Your task to perform on an android device: check storage Image 0: 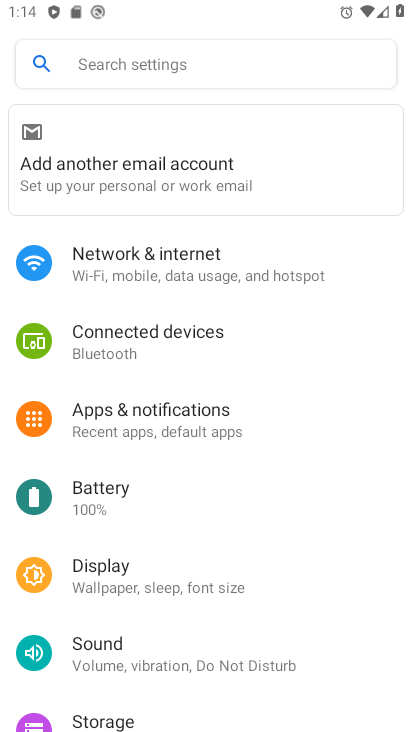
Step 0: press home button
Your task to perform on an android device: check storage Image 1: 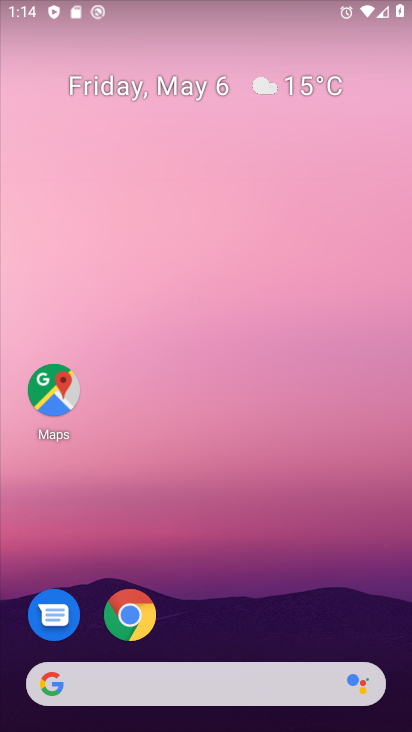
Step 1: drag from (281, 509) to (287, 62)
Your task to perform on an android device: check storage Image 2: 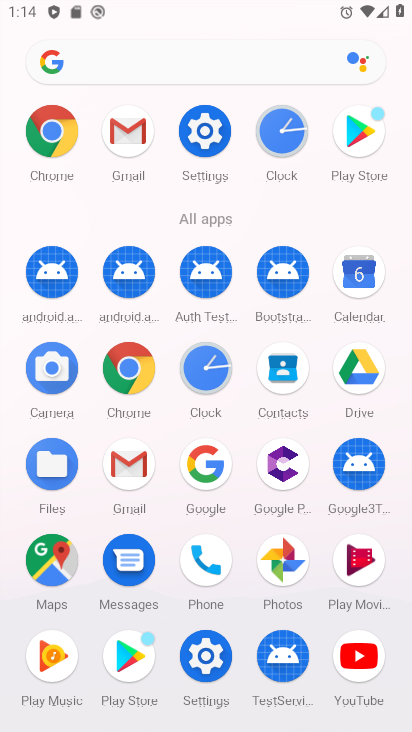
Step 2: click (215, 127)
Your task to perform on an android device: check storage Image 3: 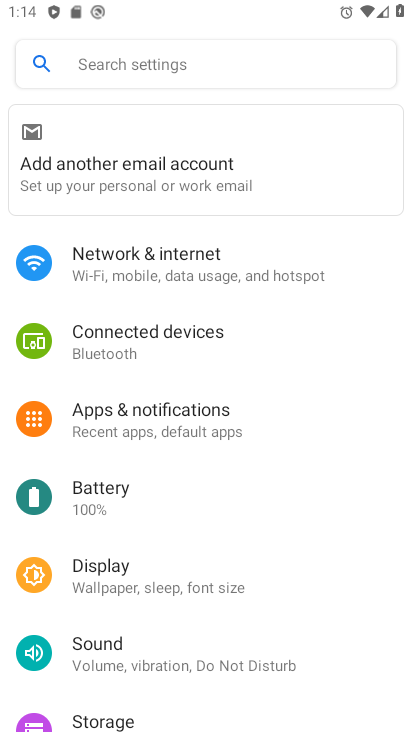
Step 3: drag from (293, 491) to (340, 296)
Your task to perform on an android device: check storage Image 4: 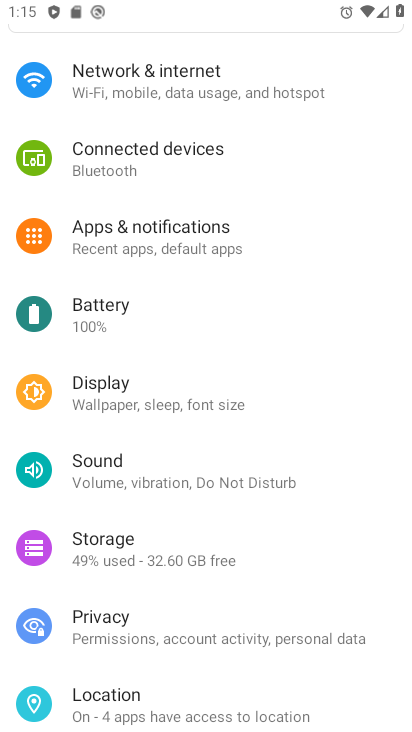
Step 4: click (177, 555)
Your task to perform on an android device: check storage Image 5: 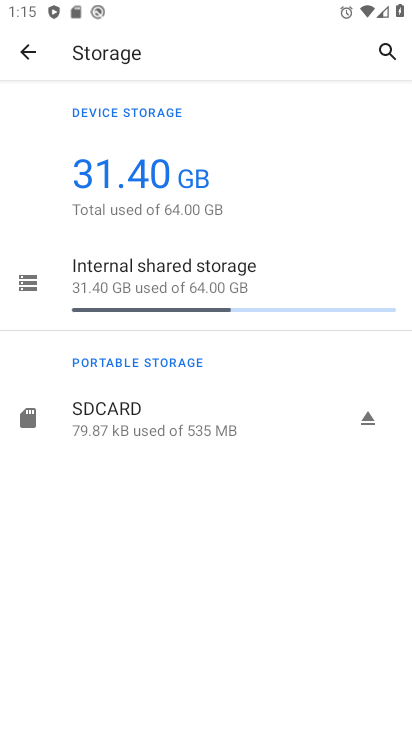
Step 5: task complete